Your task to perform on an android device: Open sound settings Image 0: 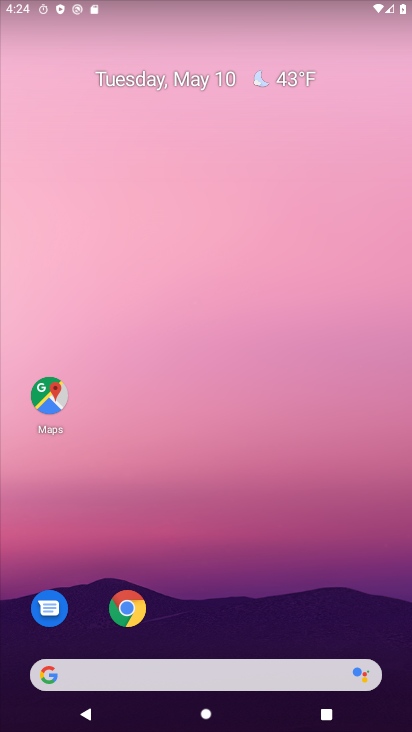
Step 0: drag from (369, 615) to (97, 101)
Your task to perform on an android device: Open sound settings Image 1: 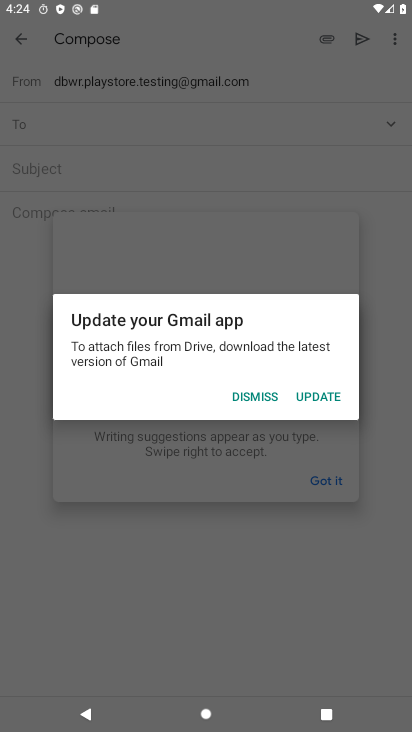
Step 1: click (259, 390)
Your task to perform on an android device: Open sound settings Image 2: 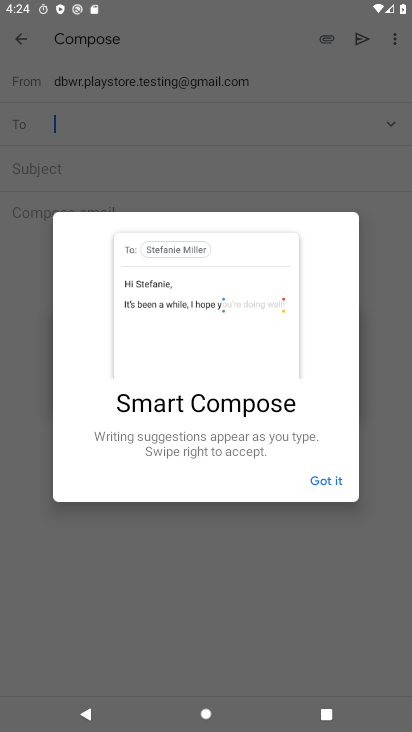
Step 2: click (324, 484)
Your task to perform on an android device: Open sound settings Image 3: 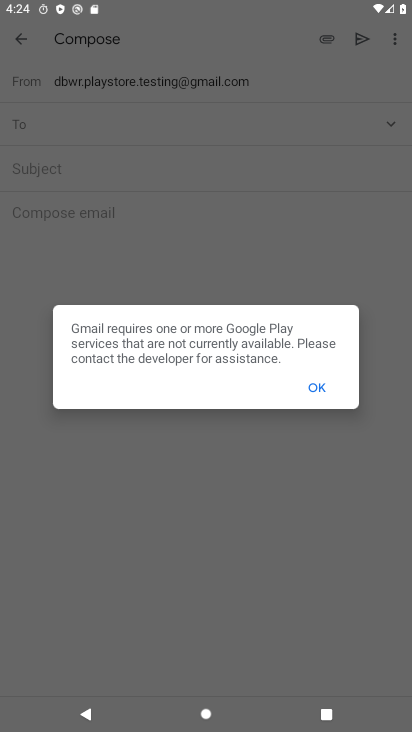
Step 3: click (322, 388)
Your task to perform on an android device: Open sound settings Image 4: 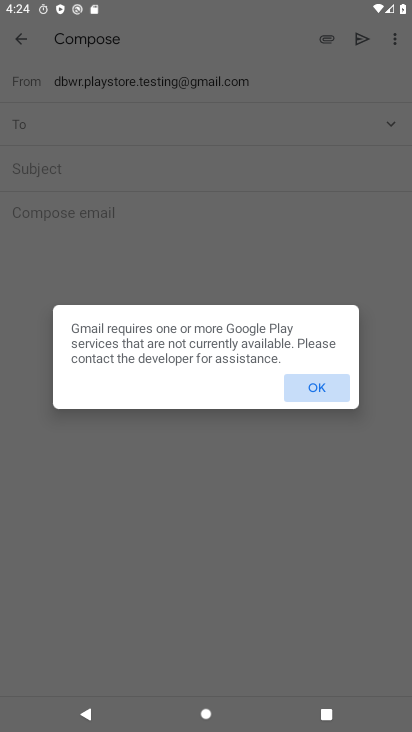
Step 4: click (322, 385)
Your task to perform on an android device: Open sound settings Image 5: 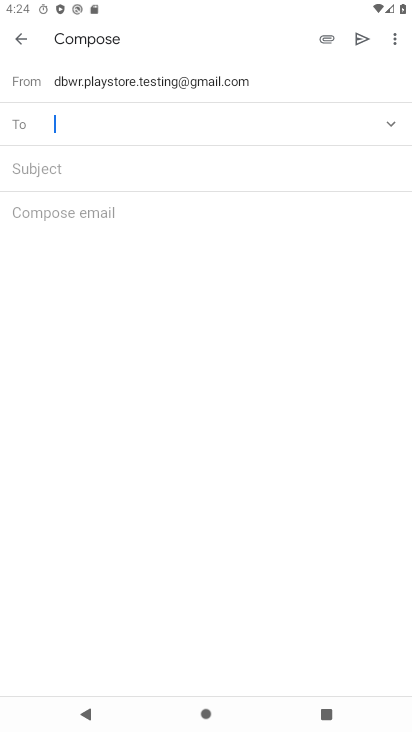
Step 5: click (322, 385)
Your task to perform on an android device: Open sound settings Image 6: 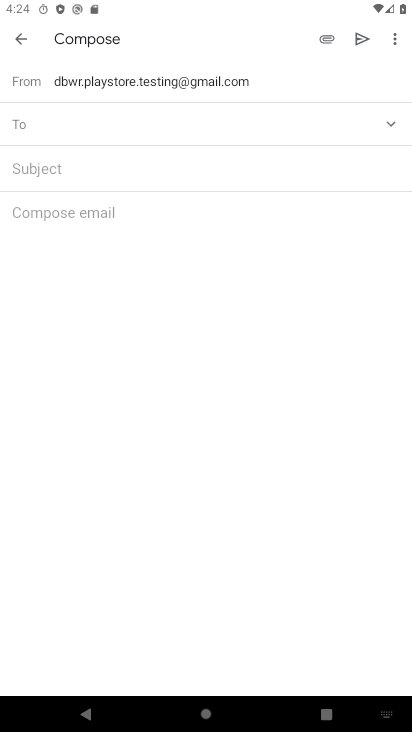
Step 6: click (11, 33)
Your task to perform on an android device: Open sound settings Image 7: 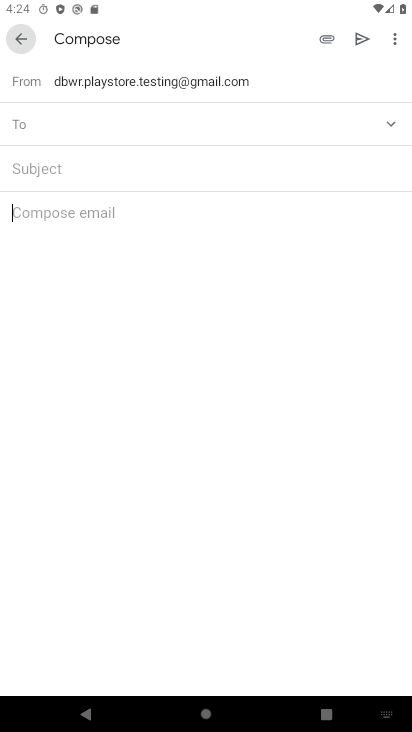
Step 7: click (13, 36)
Your task to perform on an android device: Open sound settings Image 8: 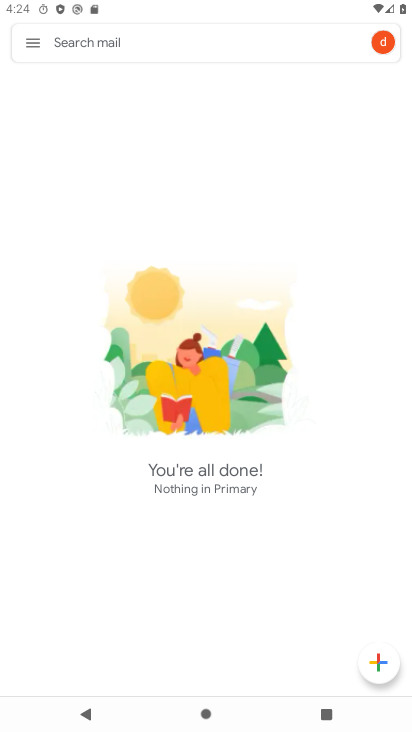
Step 8: click (30, 40)
Your task to perform on an android device: Open sound settings Image 9: 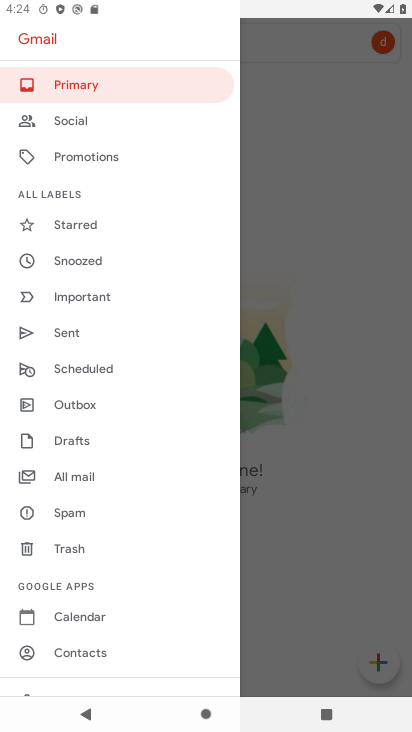
Step 9: press back button
Your task to perform on an android device: Open sound settings Image 10: 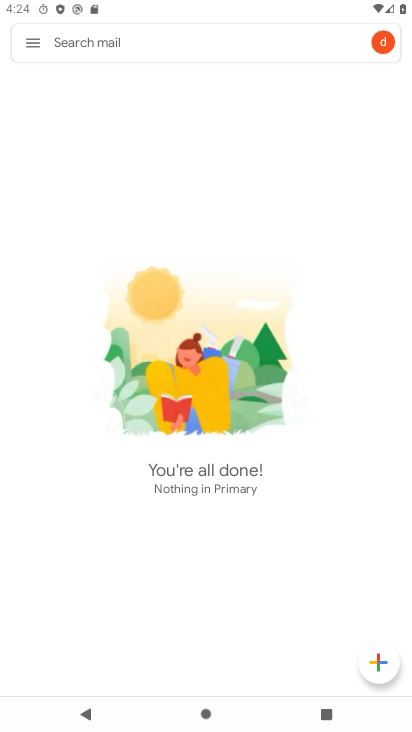
Step 10: press home button
Your task to perform on an android device: Open sound settings Image 11: 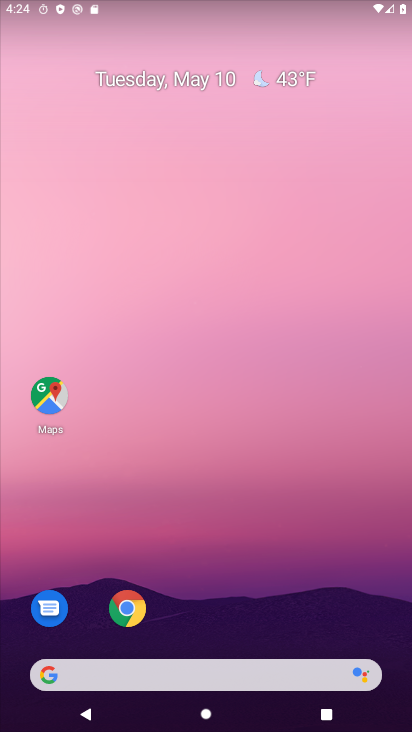
Step 11: drag from (237, 408) to (75, 11)
Your task to perform on an android device: Open sound settings Image 12: 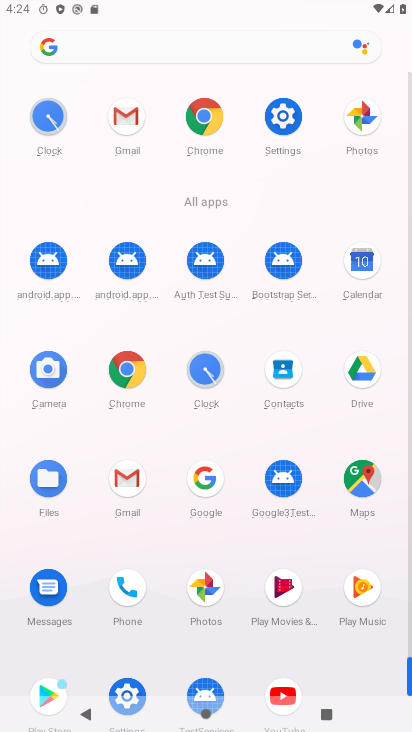
Step 12: click (287, 110)
Your task to perform on an android device: Open sound settings Image 13: 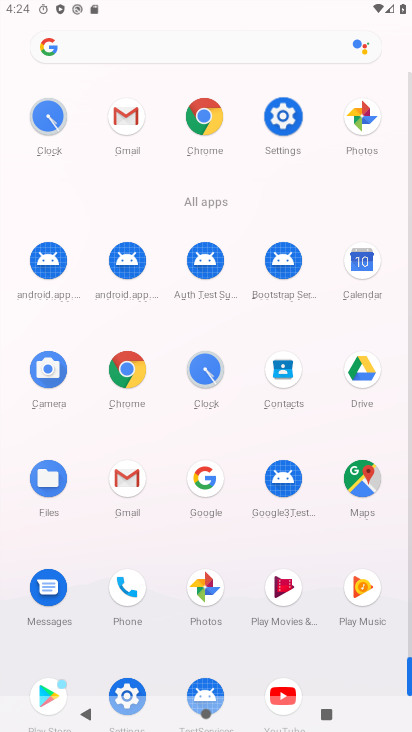
Step 13: click (287, 110)
Your task to perform on an android device: Open sound settings Image 14: 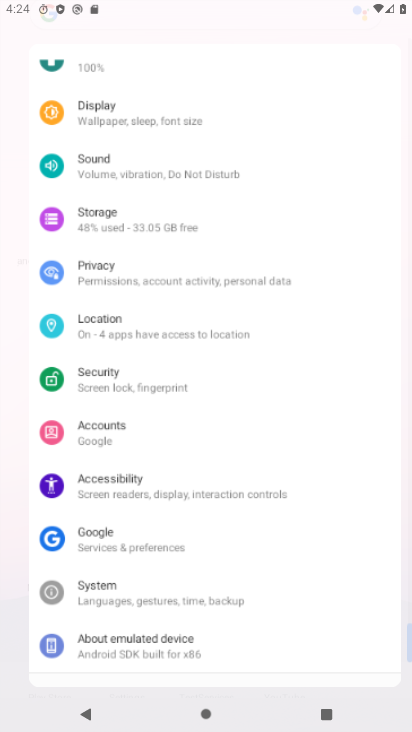
Step 14: click (287, 110)
Your task to perform on an android device: Open sound settings Image 15: 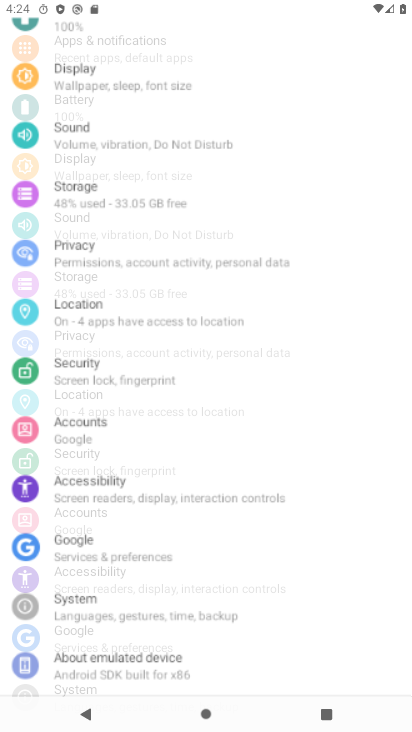
Step 15: click (287, 110)
Your task to perform on an android device: Open sound settings Image 16: 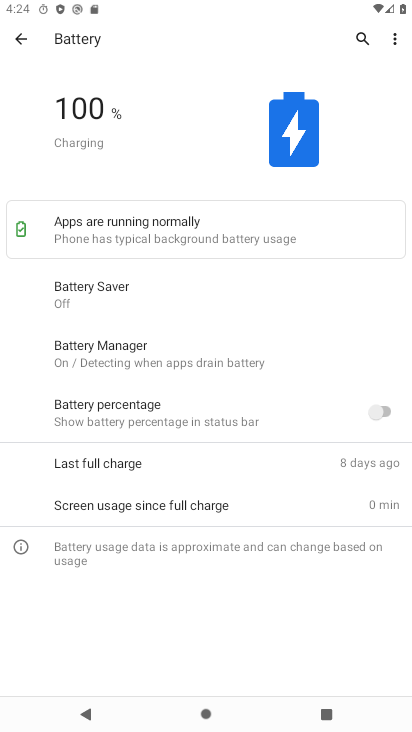
Step 16: click (18, 38)
Your task to perform on an android device: Open sound settings Image 17: 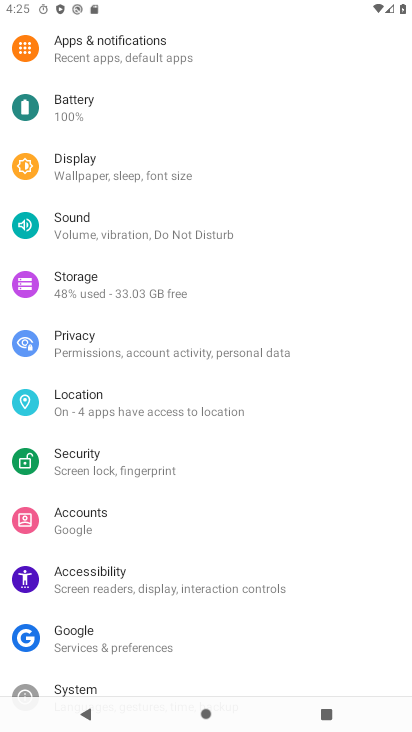
Step 17: click (87, 230)
Your task to perform on an android device: Open sound settings Image 18: 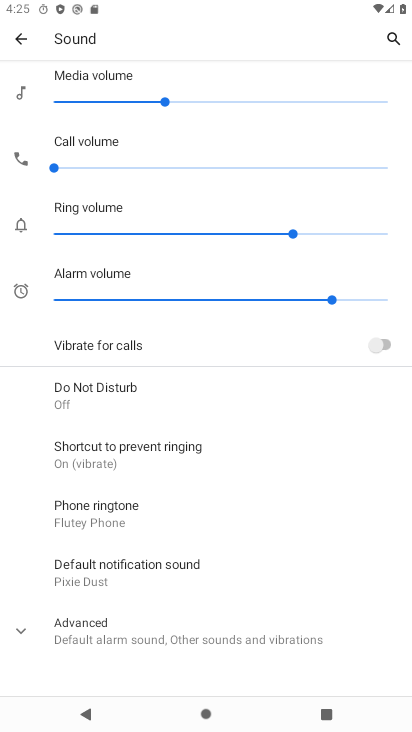
Step 18: task complete